Your task to perform on an android device: check out phone information Image 0: 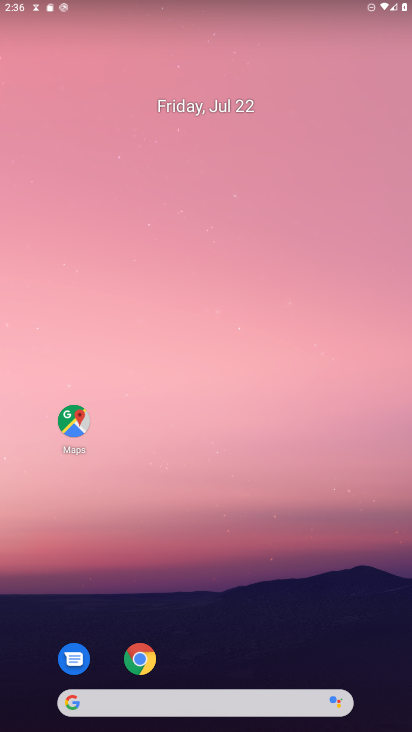
Step 0: drag from (253, 529) to (229, 78)
Your task to perform on an android device: check out phone information Image 1: 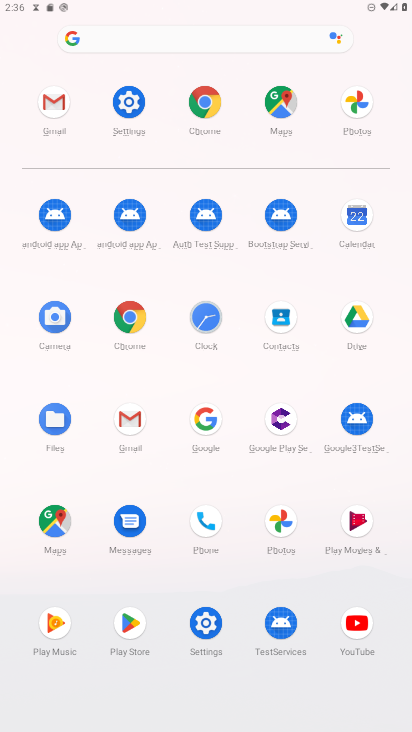
Step 1: click (126, 89)
Your task to perform on an android device: check out phone information Image 2: 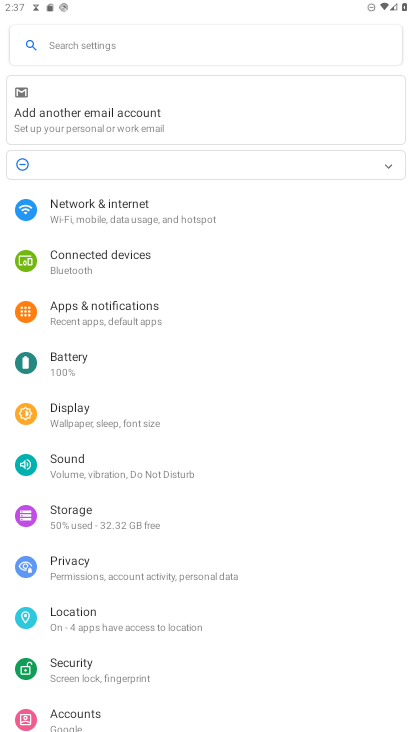
Step 2: drag from (195, 619) to (321, 96)
Your task to perform on an android device: check out phone information Image 3: 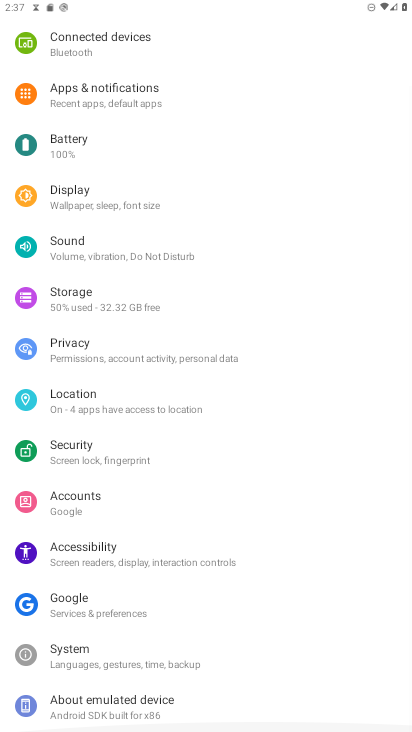
Step 3: click (94, 702)
Your task to perform on an android device: check out phone information Image 4: 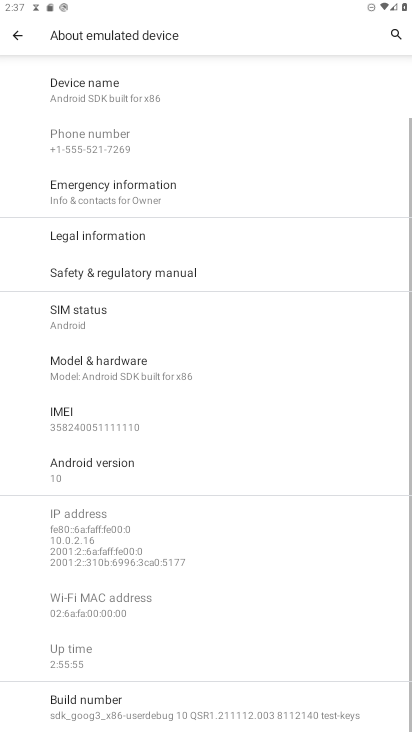
Step 4: task complete